Your task to perform on an android device: Go to wifi settings Image 0: 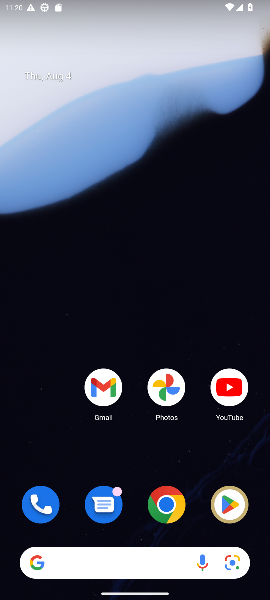
Step 0: drag from (95, 459) to (17, 6)
Your task to perform on an android device: Go to wifi settings Image 1: 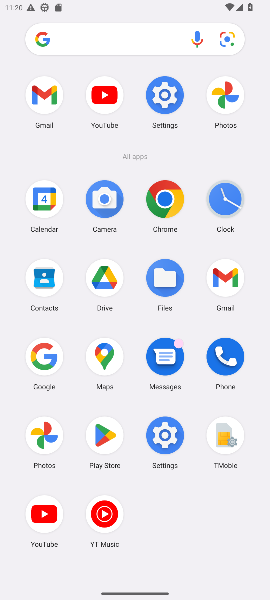
Step 1: click (162, 438)
Your task to perform on an android device: Go to wifi settings Image 2: 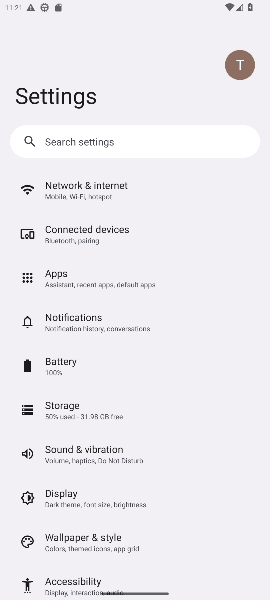
Step 2: click (73, 188)
Your task to perform on an android device: Go to wifi settings Image 3: 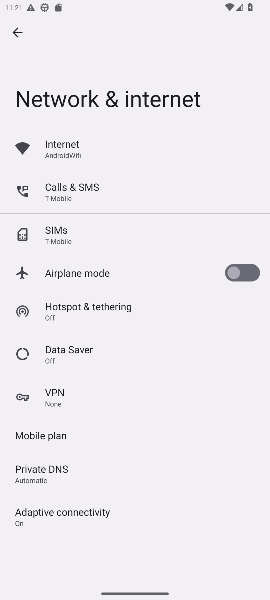
Step 3: click (82, 154)
Your task to perform on an android device: Go to wifi settings Image 4: 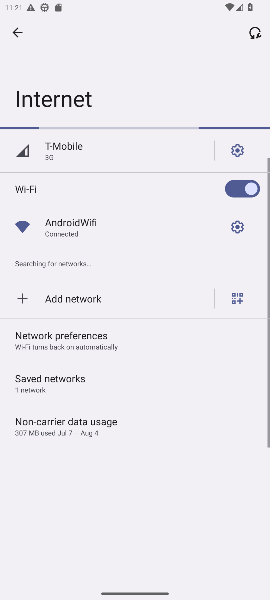
Step 4: task complete